Your task to perform on an android device: Show me popular videos on Youtube Image 0: 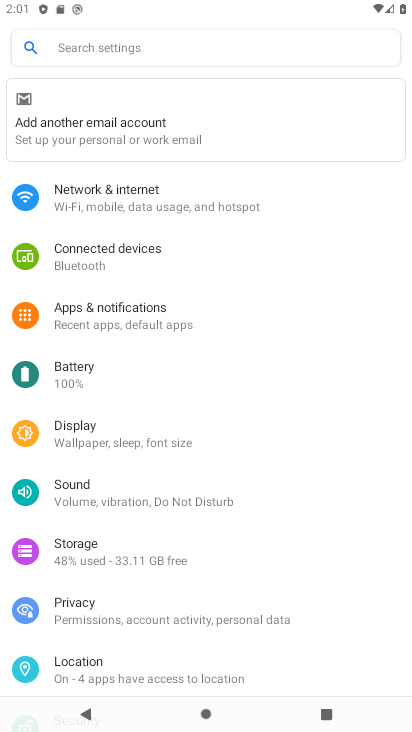
Step 0: press home button
Your task to perform on an android device: Show me popular videos on Youtube Image 1: 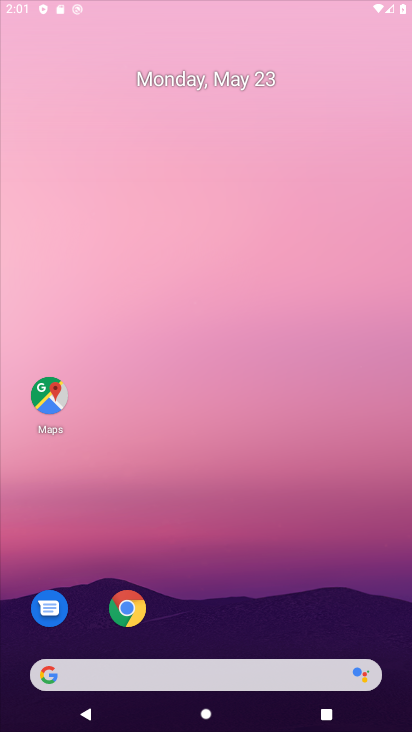
Step 1: drag from (284, 653) to (331, 316)
Your task to perform on an android device: Show me popular videos on Youtube Image 2: 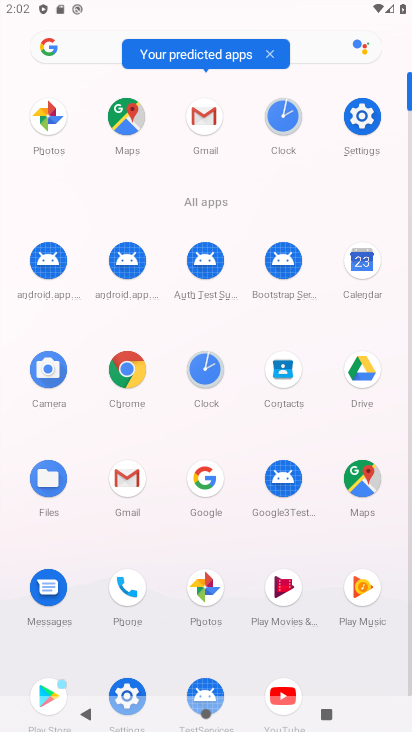
Step 2: drag from (314, 661) to (346, 554)
Your task to perform on an android device: Show me popular videos on Youtube Image 3: 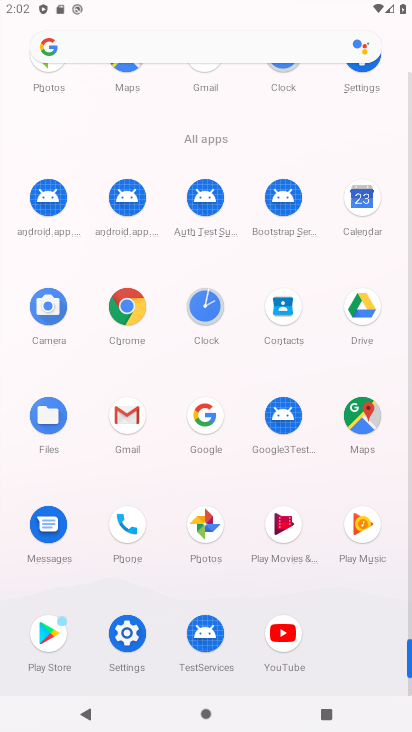
Step 3: click (284, 655)
Your task to perform on an android device: Show me popular videos on Youtube Image 4: 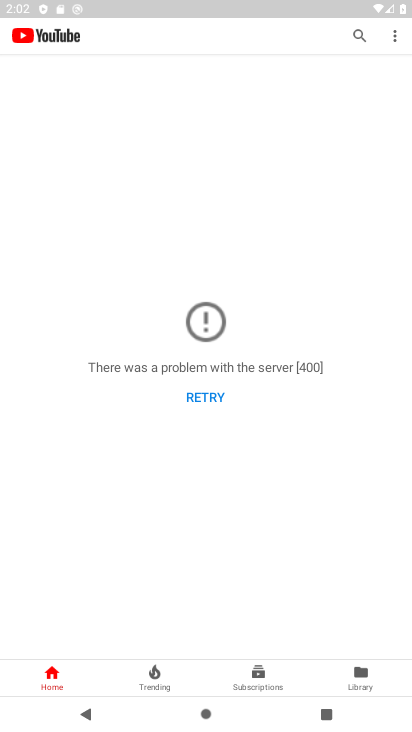
Step 4: click (357, 31)
Your task to perform on an android device: Show me popular videos on Youtube Image 5: 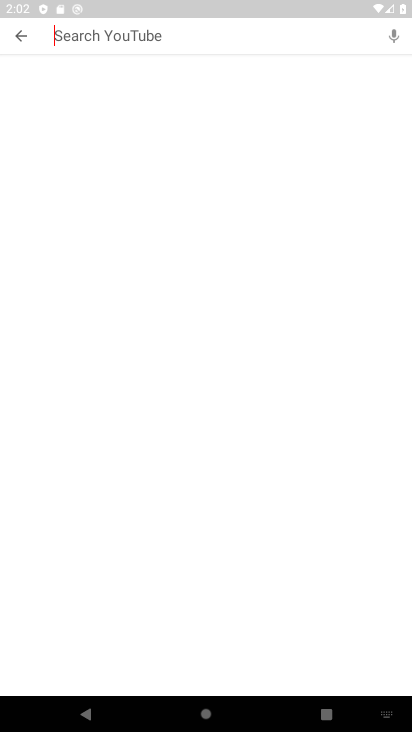
Step 5: click (196, 31)
Your task to perform on an android device: Show me popular videos on Youtube Image 6: 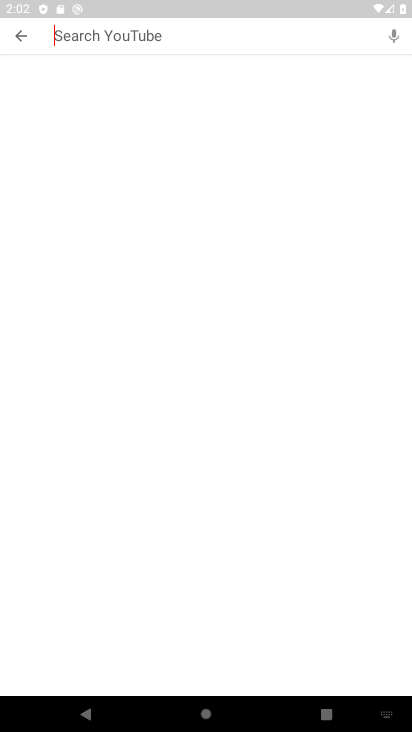
Step 6: type "india"
Your task to perform on an android device: Show me popular videos on Youtube Image 7: 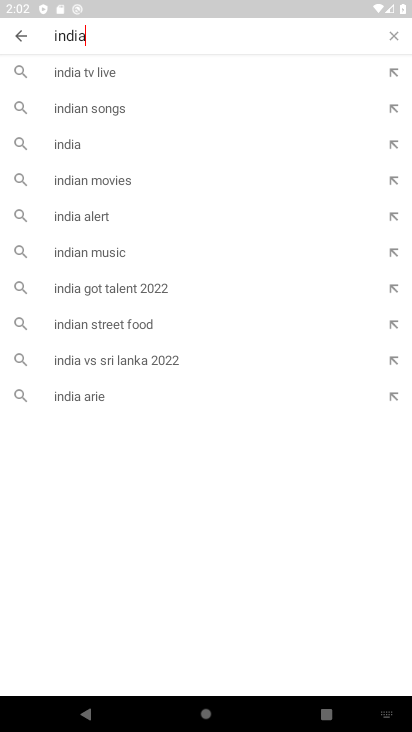
Step 7: click (134, 76)
Your task to perform on an android device: Show me popular videos on Youtube Image 8: 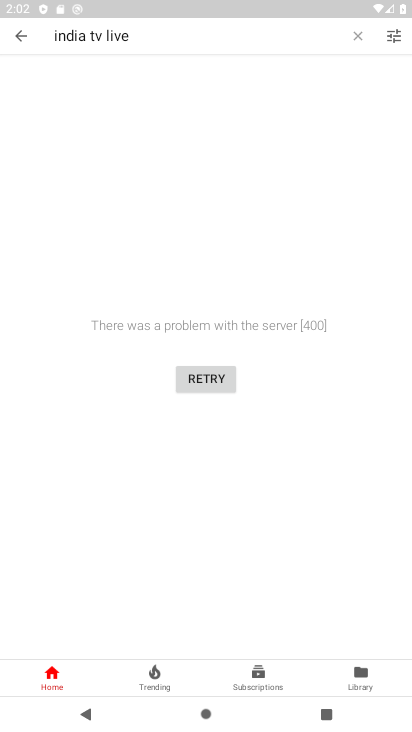
Step 8: task complete